Your task to perform on an android device: delete location history Image 0: 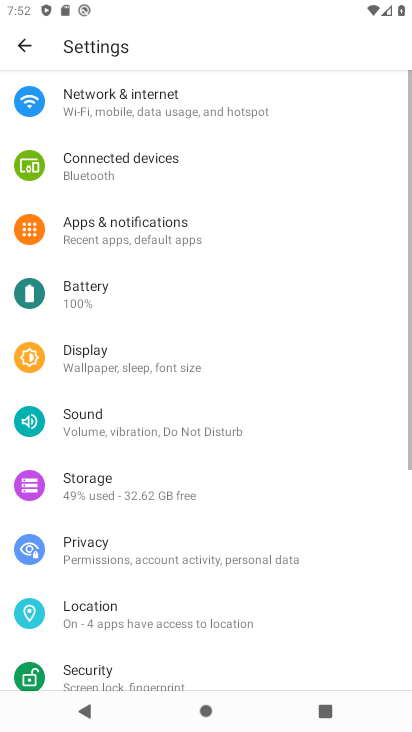
Step 0: click (155, 622)
Your task to perform on an android device: delete location history Image 1: 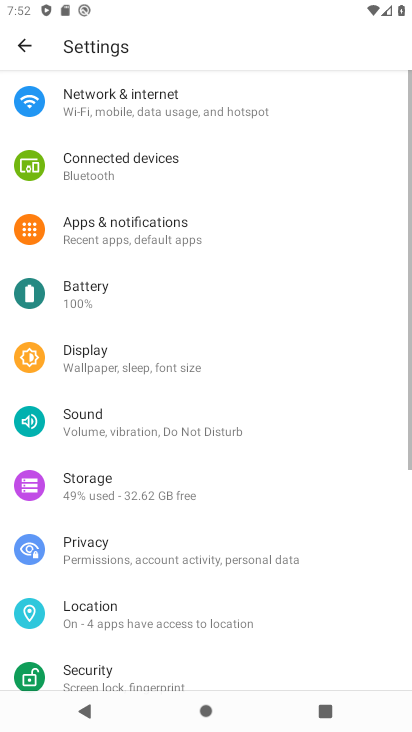
Step 1: click (155, 622)
Your task to perform on an android device: delete location history Image 2: 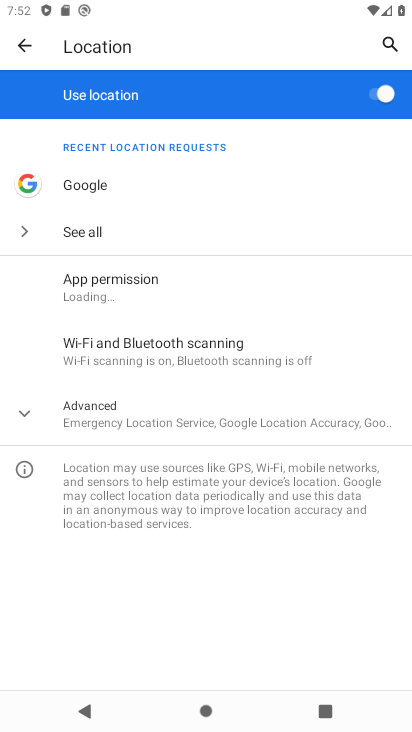
Step 2: click (122, 430)
Your task to perform on an android device: delete location history Image 3: 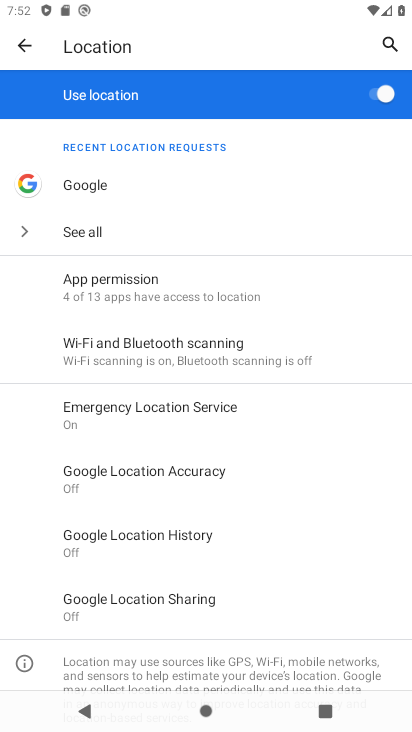
Step 3: click (245, 552)
Your task to perform on an android device: delete location history Image 4: 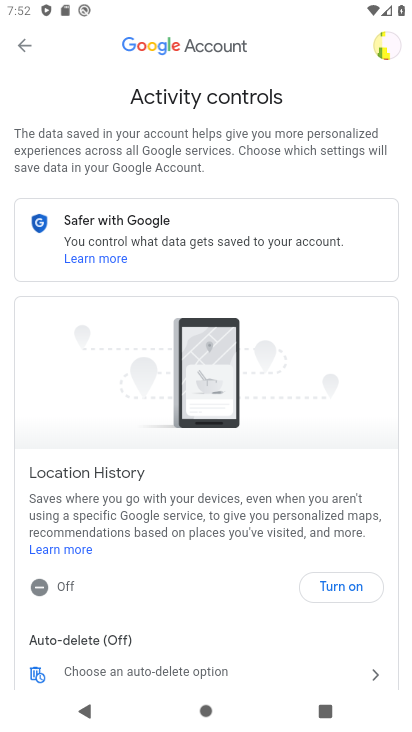
Step 4: drag from (196, 596) to (324, 130)
Your task to perform on an android device: delete location history Image 5: 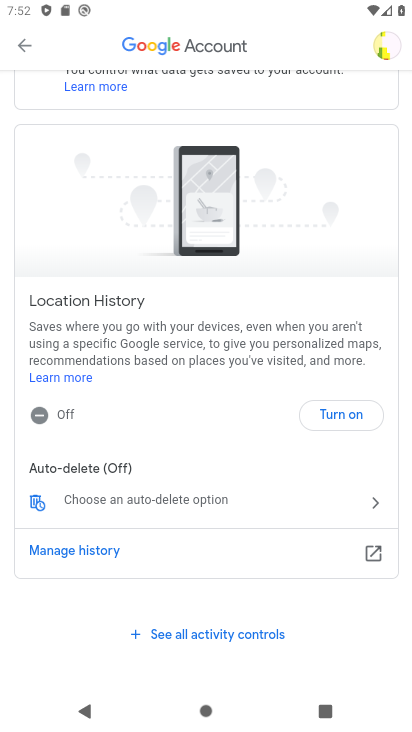
Step 5: click (38, 501)
Your task to perform on an android device: delete location history Image 6: 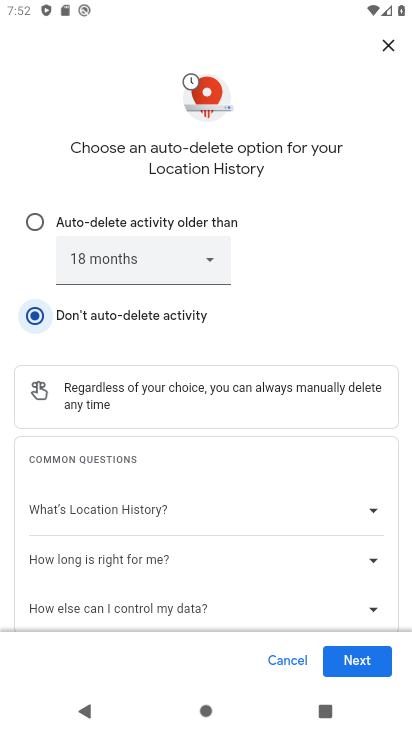
Step 6: drag from (179, 538) to (390, 142)
Your task to perform on an android device: delete location history Image 7: 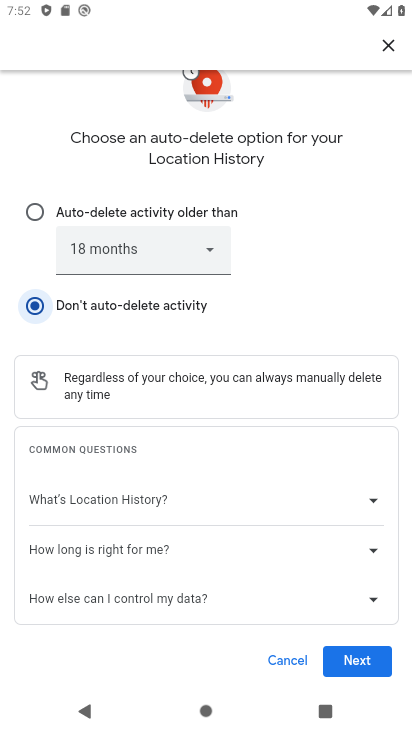
Step 7: click (354, 664)
Your task to perform on an android device: delete location history Image 8: 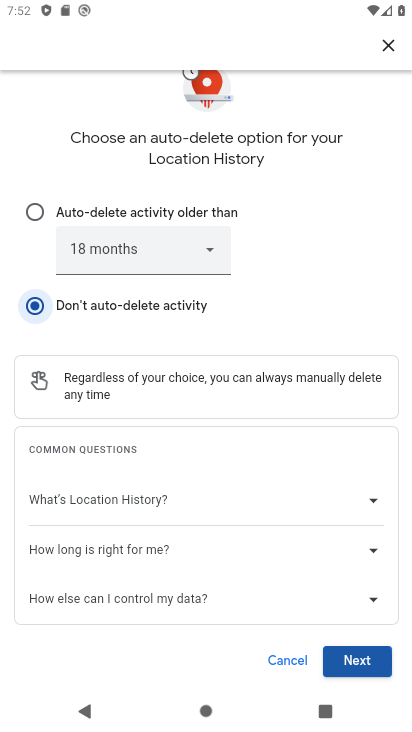
Step 8: click (351, 656)
Your task to perform on an android device: delete location history Image 9: 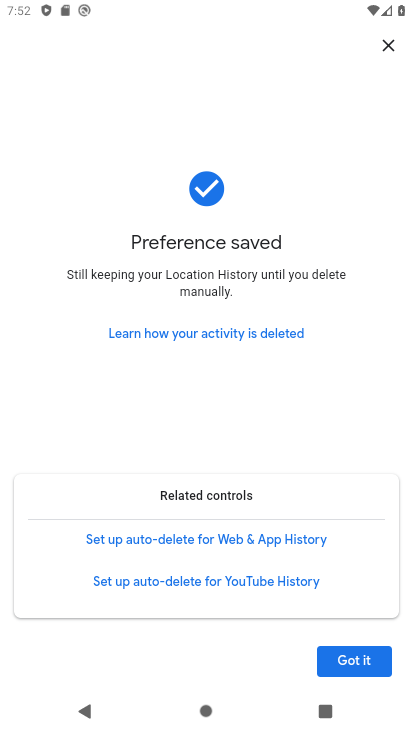
Step 9: click (347, 656)
Your task to perform on an android device: delete location history Image 10: 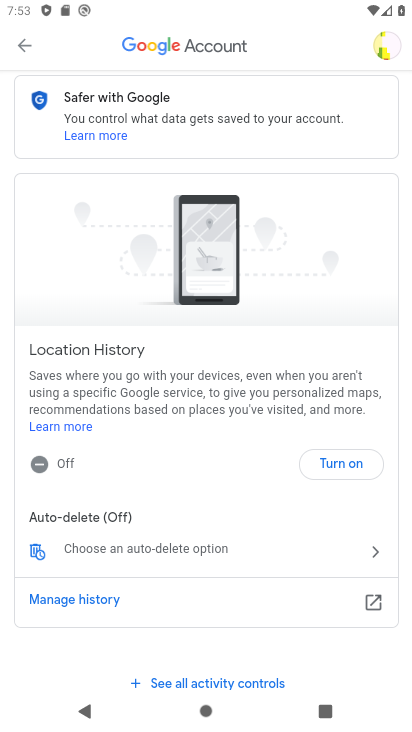
Step 10: task complete